Your task to perform on an android device: Go to Reddit.com Image 0: 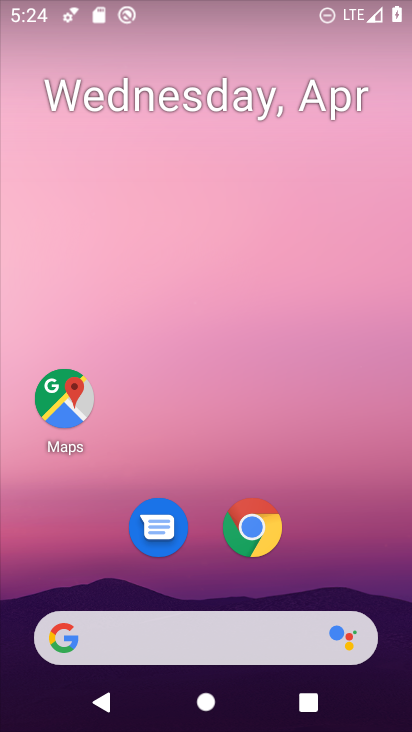
Step 0: click (252, 535)
Your task to perform on an android device: Go to Reddit.com Image 1: 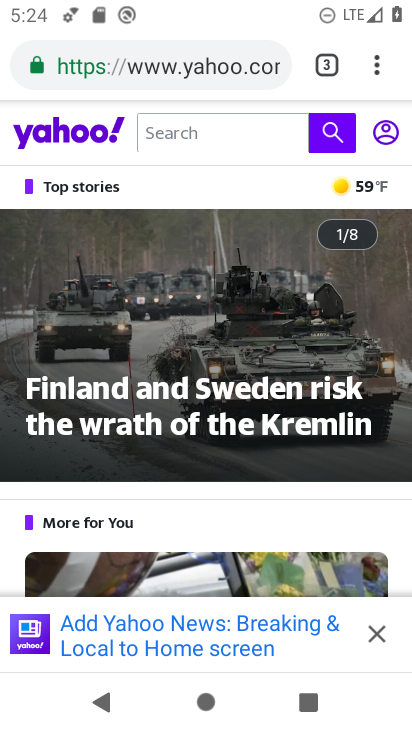
Step 1: click (157, 59)
Your task to perform on an android device: Go to Reddit.com Image 2: 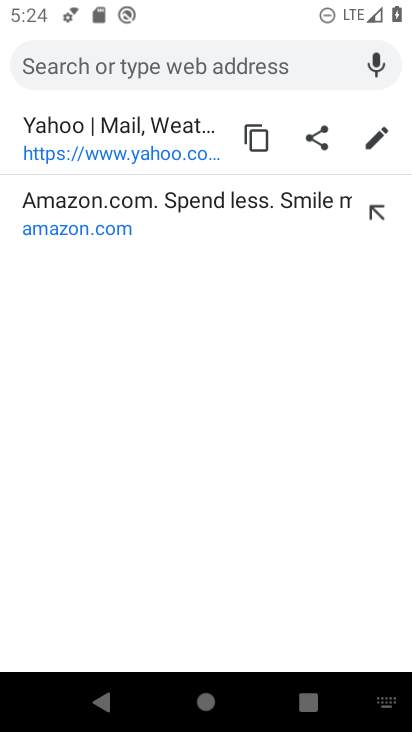
Step 2: type "reddit.com"
Your task to perform on an android device: Go to Reddit.com Image 3: 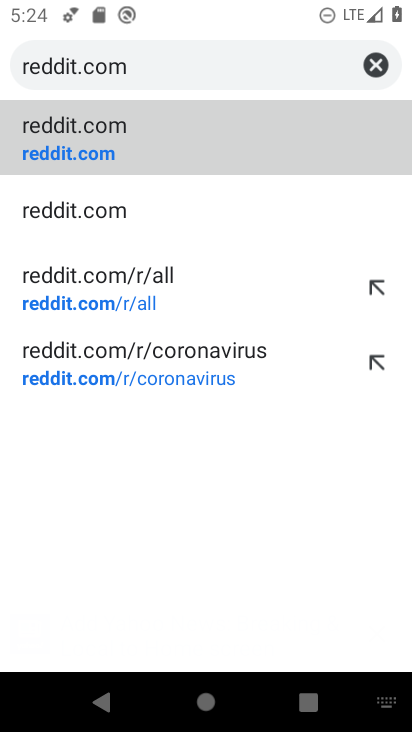
Step 3: click (107, 138)
Your task to perform on an android device: Go to Reddit.com Image 4: 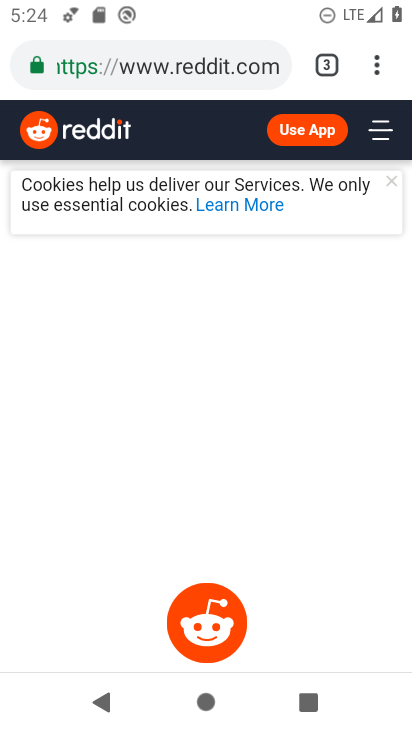
Step 4: task complete